Your task to perform on an android device: Go to settings Image 0: 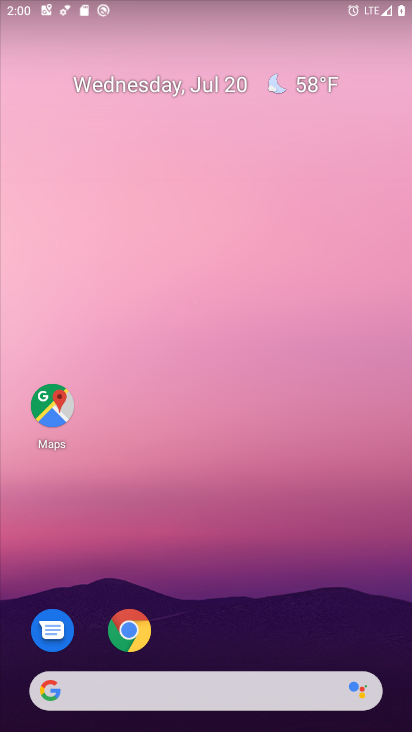
Step 0: drag from (213, 553) to (214, 74)
Your task to perform on an android device: Go to settings Image 1: 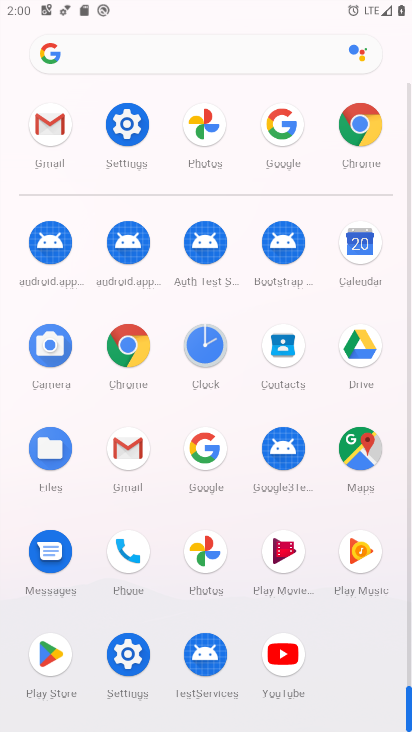
Step 1: drag from (156, 401) to (159, 150)
Your task to perform on an android device: Go to settings Image 2: 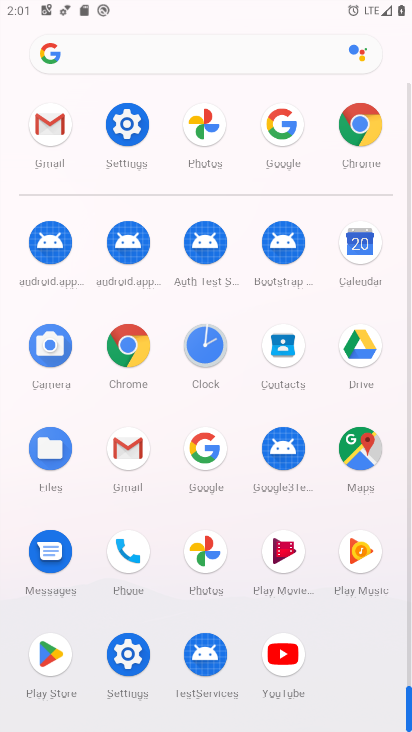
Step 2: click (133, 131)
Your task to perform on an android device: Go to settings Image 3: 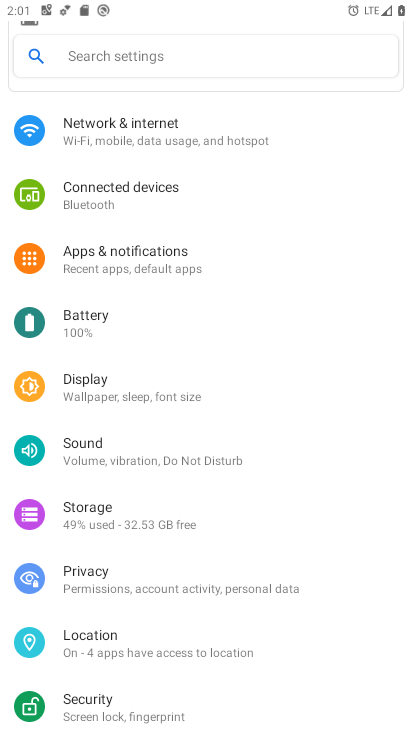
Step 3: task complete